Your task to perform on an android device: Find coffee shops on Maps Image 0: 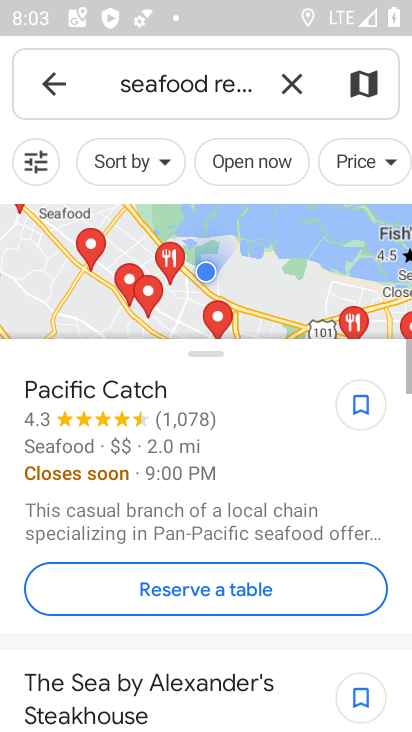
Step 0: press home button
Your task to perform on an android device: Find coffee shops on Maps Image 1: 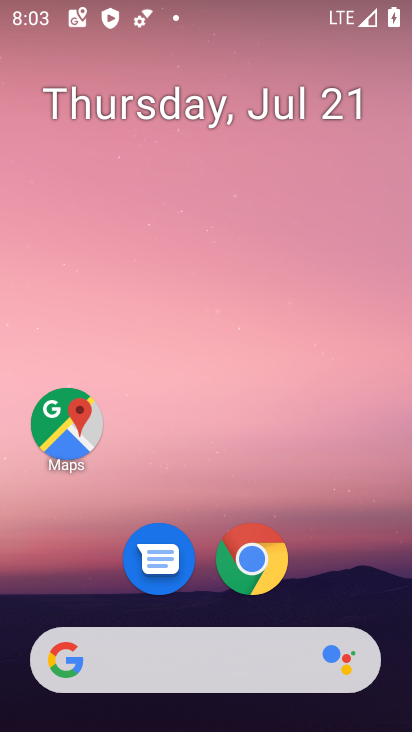
Step 1: drag from (239, 641) to (268, 71)
Your task to perform on an android device: Find coffee shops on Maps Image 2: 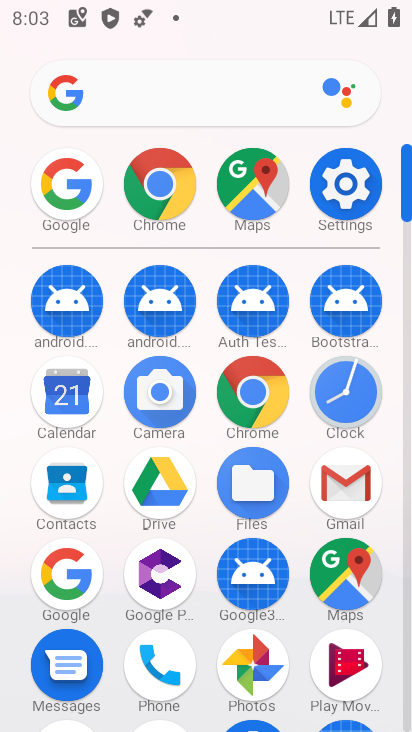
Step 2: click (260, 206)
Your task to perform on an android device: Find coffee shops on Maps Image 3: 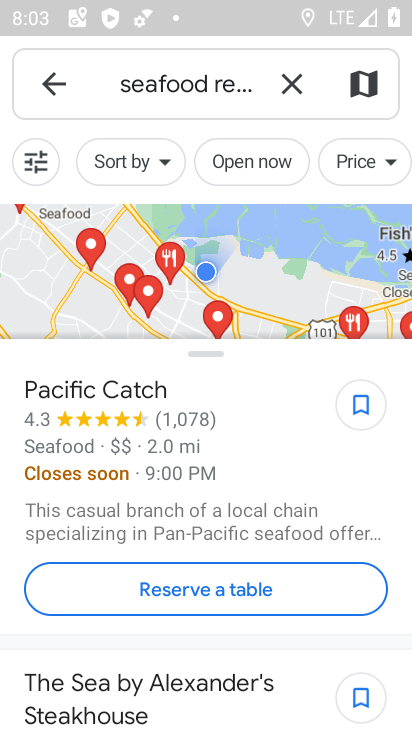
Step 3: click (285, 83)
Your task to perform on an android device: Find coffee shops on Maps Image 4: 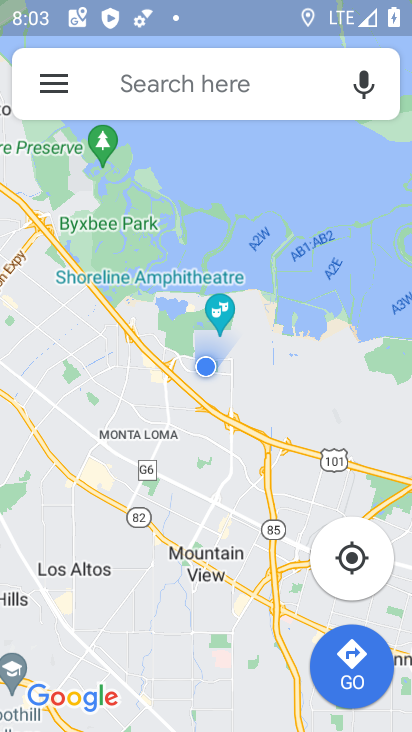
Step 4: click (223, 91)
Your task to perform on an android device: Find coffee shops on Maps Image 5: 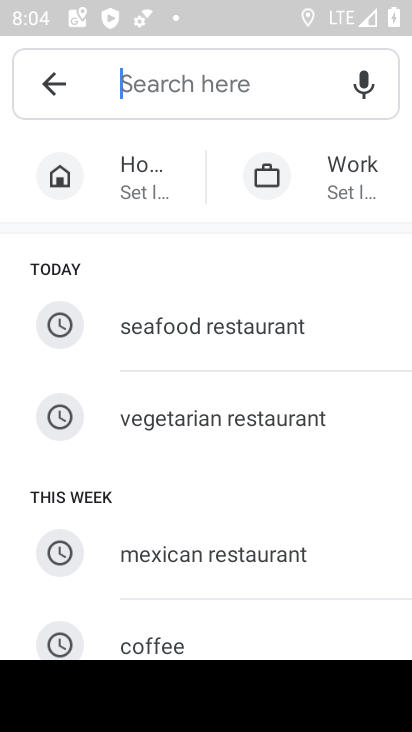
Step 5: drag from (216, 556) to (230, 377)
Your task to perform on an android device: Find coffee shops on Maps Image 6: 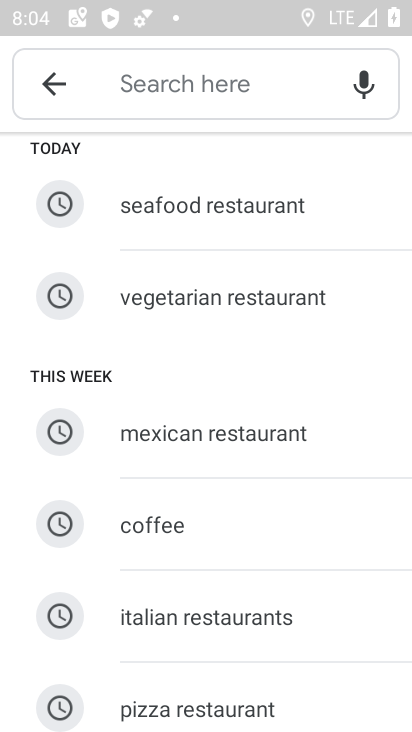
Step 6: click (211, 93)
Your task to perform on an android device: Find coffee shops on Maps Image 7: 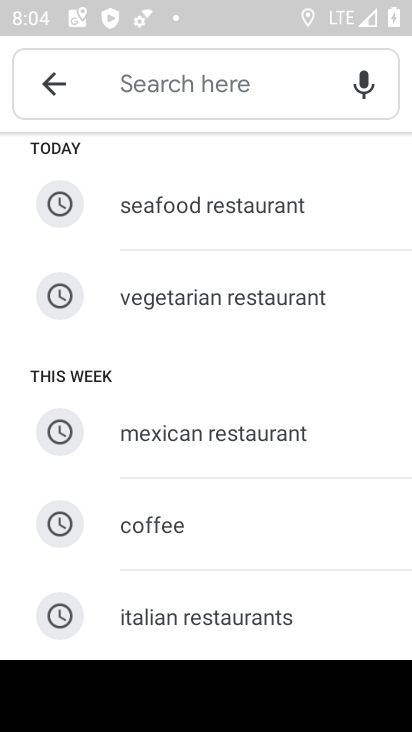
Step 7: type "coffee shops"
Your task to perform on an android device: Find coffee shops on Maps Image 8: 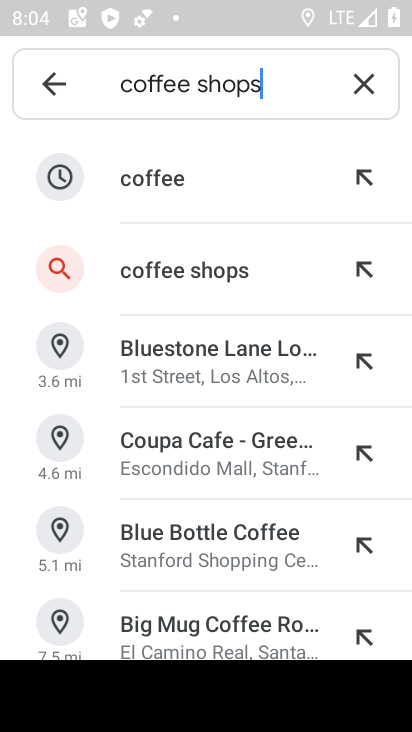
Step 8: click (210, 276)
Your task to perform on an android device: Find coffee shops on Maps Image 9: 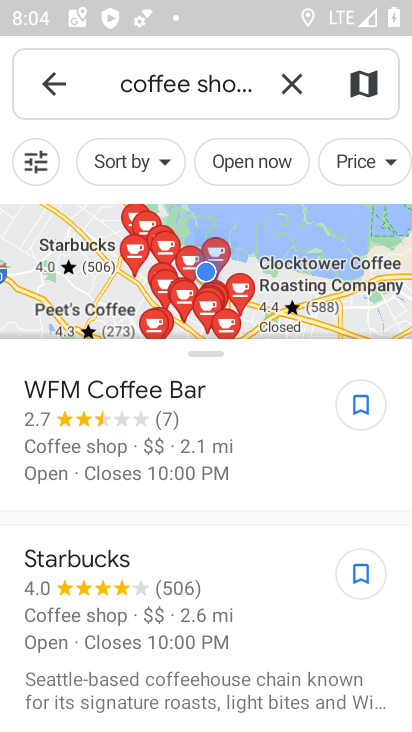
Step 9: task complete